Your task to perform on an android device: turn notification dots on Image 0: 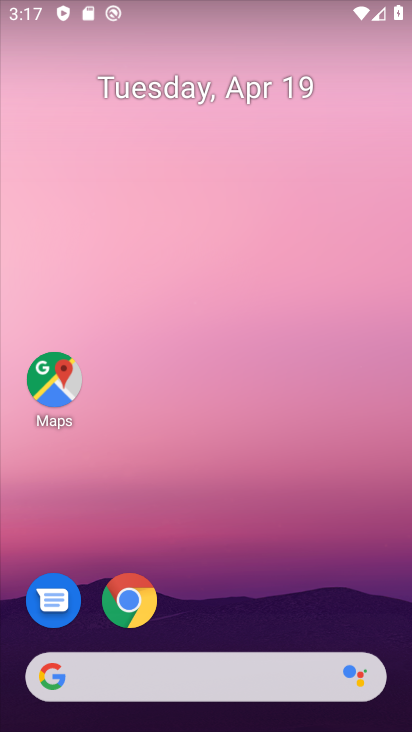
Step 0: drag from (146, 14) to (109, 509)
Your task to perform on an android device: turn notification dots on Image 1: 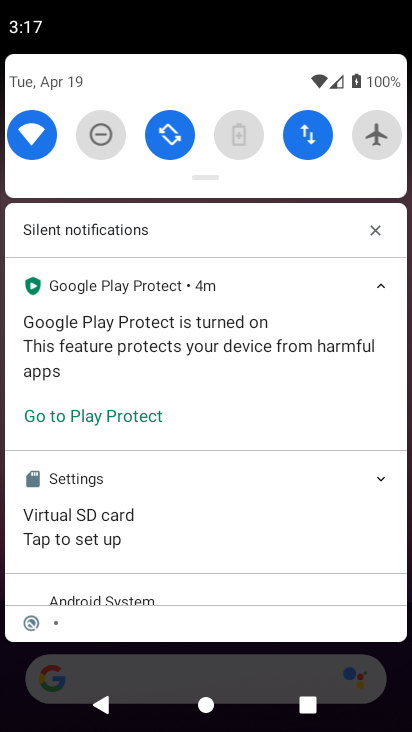
Step 1: drag from (202, 89) to (178, 575)
Your task to perform on an android device: turn notification dots on Image 2: 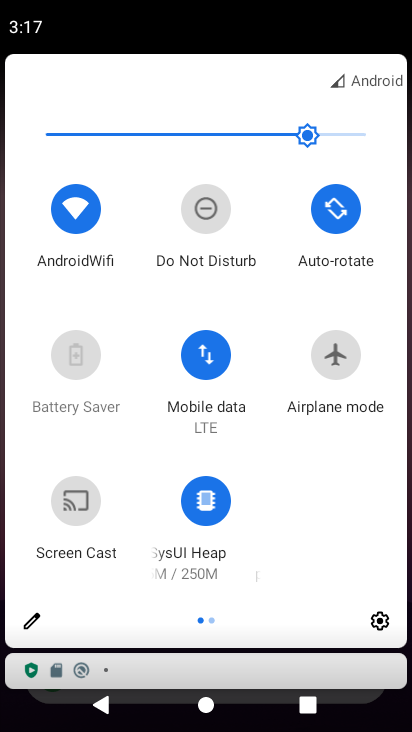
Step 2: click (376, 611)
Your task to perform on an android device: turn notification dots on Image 3: 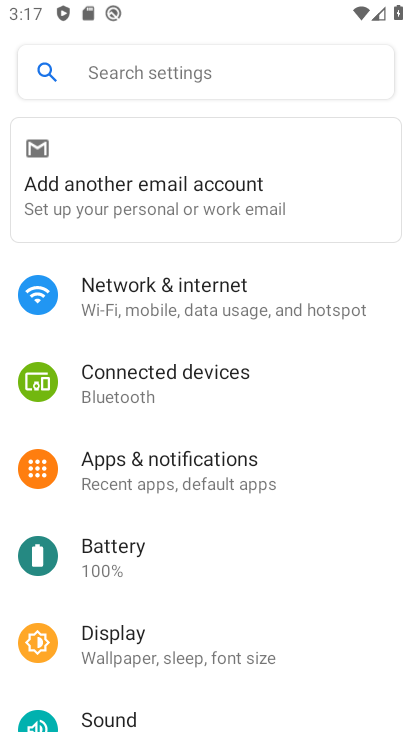
Step 3: click (169, 456)
Your task to perform on an android device: turn notification dots on Image 4: 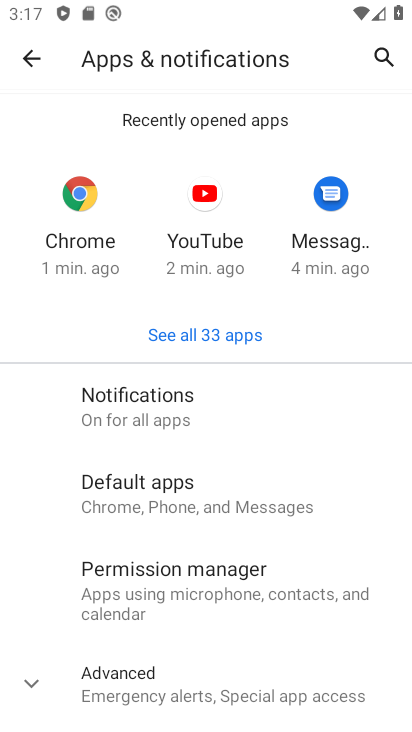
Step 4: click (203, 420)
Your task to perform on an android device: turn notification dots on Image 5: 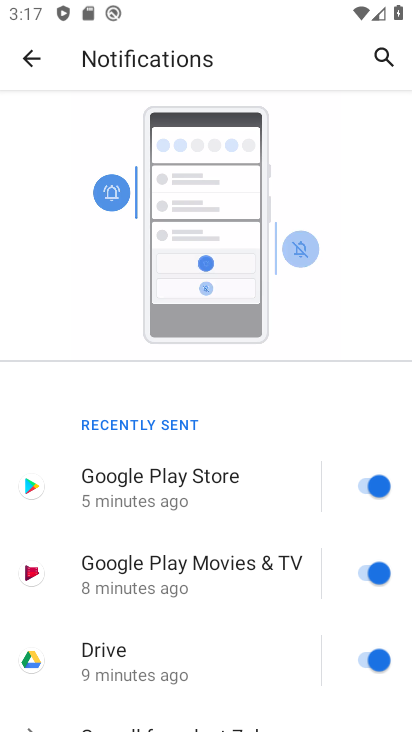
Step 5: drag from (141, 658) to (264, 194)
Your task to perform on an android device: turn notification dots on Image 6: 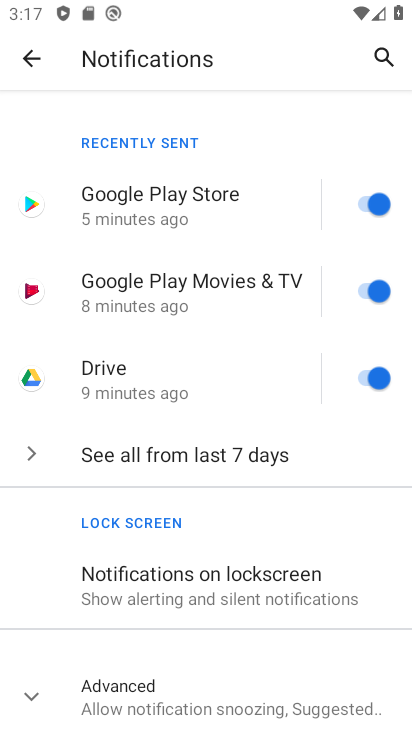
Step 6: drag from (120, 665) to (199, 179)
Your task to perform on an android device: turn notification dots on Image 7: 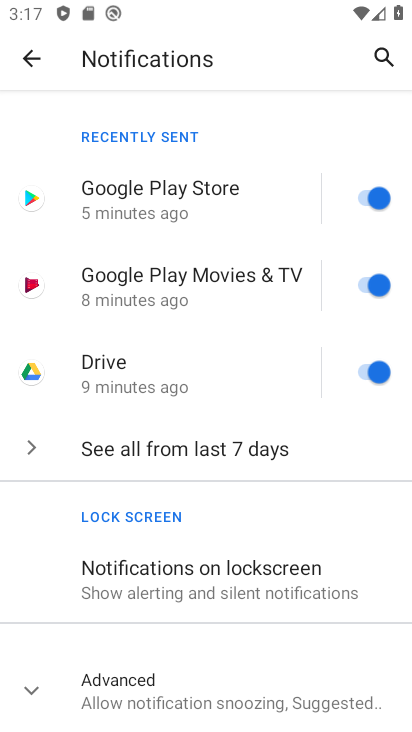
Step 7: click (170, 714)
Your task to perform on an android device: turn notification dots on Image 8: 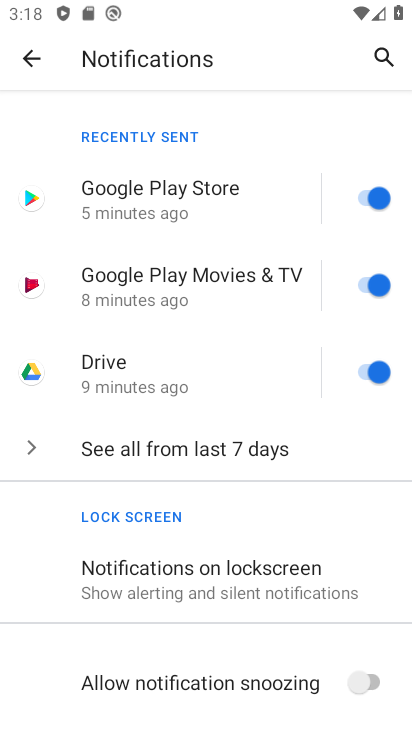
Step 8: task complete